Your task to perform on an android device: Show me popular videos on Youtube Image 0: 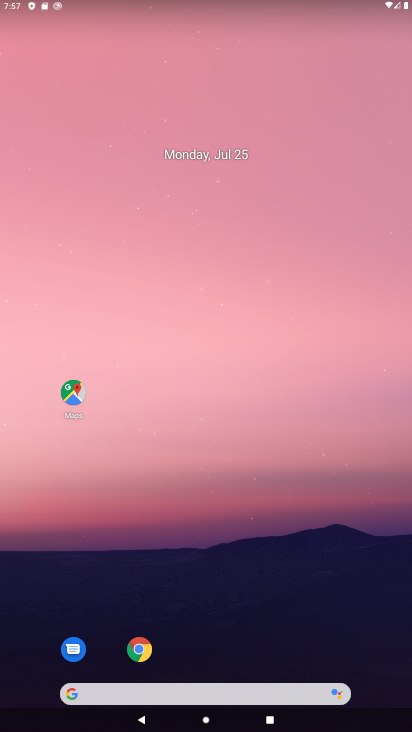
Step 0: drag from (226, 638) to (230, 127)
Your task to perform on an android device: Show me popular videos on Youtube Image 1: 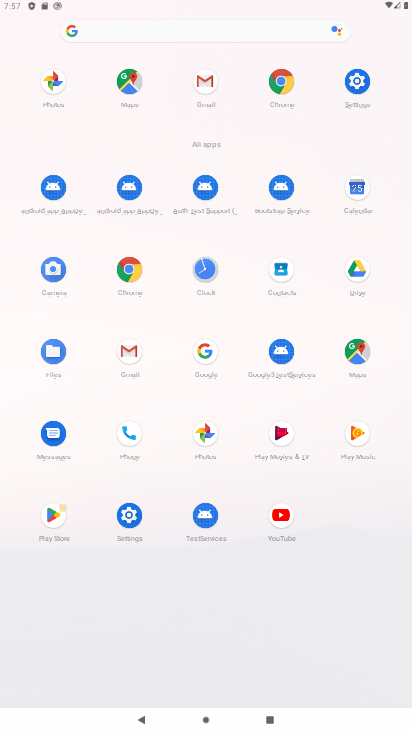
Step 1: click (285, 538)
Your task to perform on an android device: Show me popular videos on Youtube Image 2: 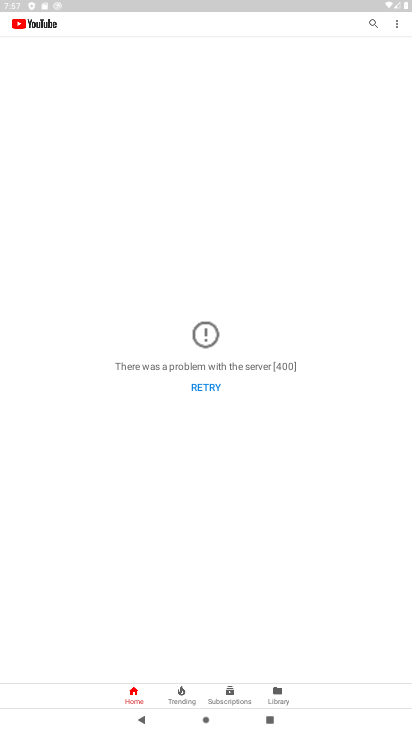
Step 2: click (369, 27)
Your task to perform on an android device: Show me popular videos on Youtube Image 3: 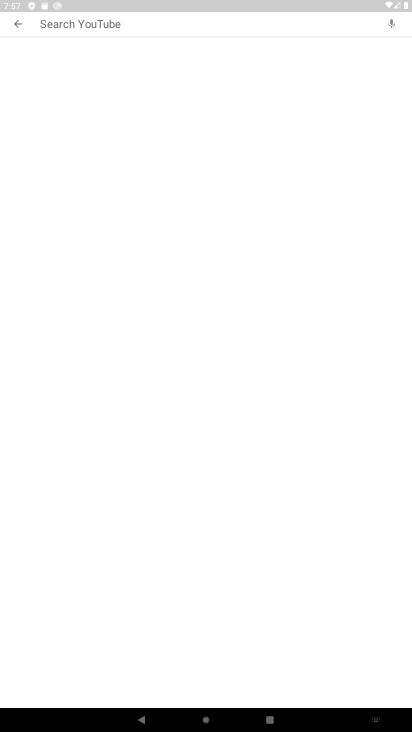
Step 3: type "popular videos"
Your task to perform on an android device: Show me popular videos on Youtube Image 4: 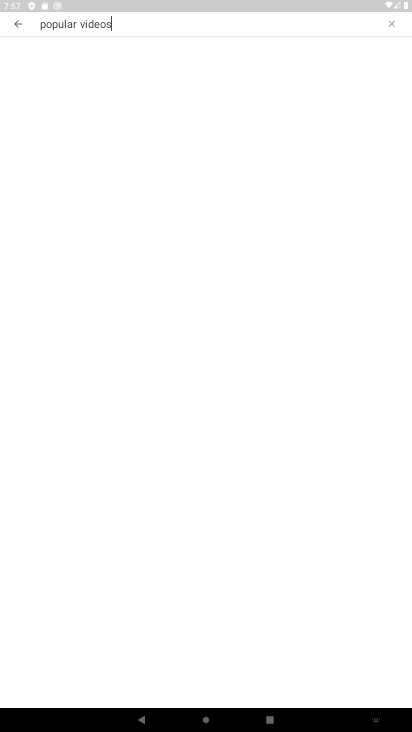
Step 4: type ""
Your task to perform on an android device: Show me popular videos on Youtube Image 5: 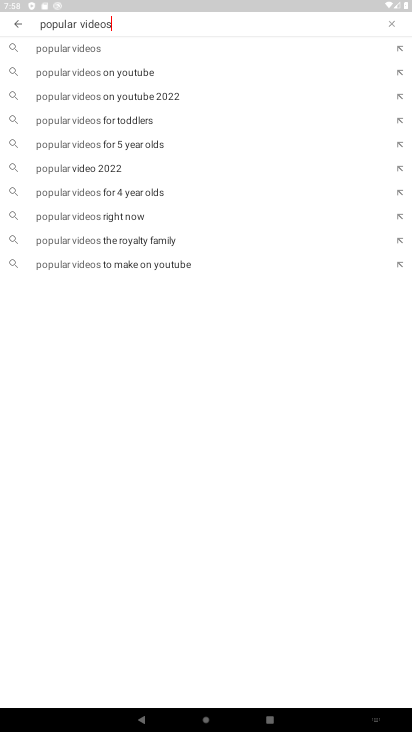
Step 5: click (112, 45)
Your task to perform on an android device: Show me popular videos on Youtube Image 6: 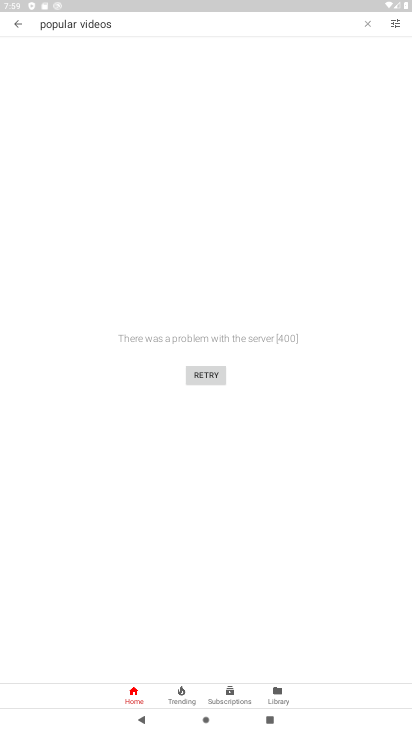
Step 6: task complete